Your task to perform on an android device: Open Chrome and go to the settings page Image 0: 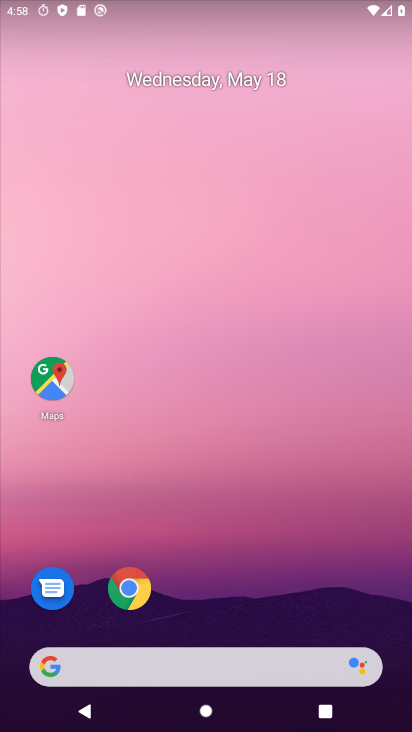
Step 0: drag from (266, 572) to (299, 0)
Your task to perform on an android device: Open Chrome and go to the settings page Image 1: 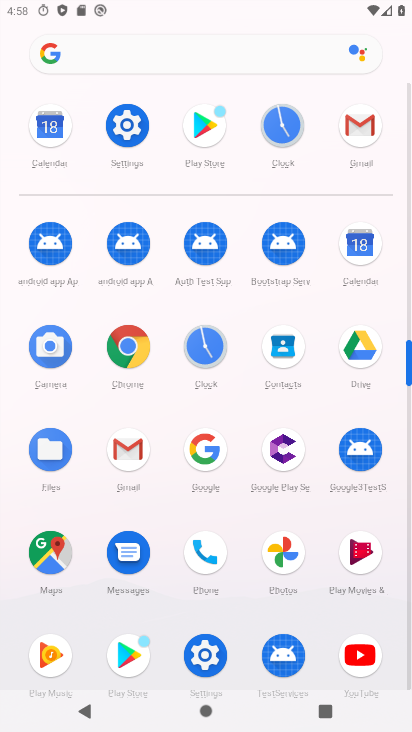
Step 1: click (123, 342)
Your task to perform on an android device: Open Chrome and go to the settings page Image 2: 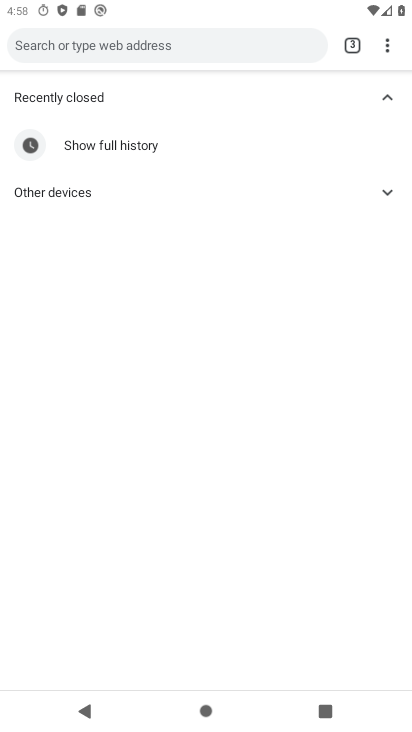
Step 2: task complete